Your task to perform on an android device: Search for 3d printer on AliExpress Image 0: 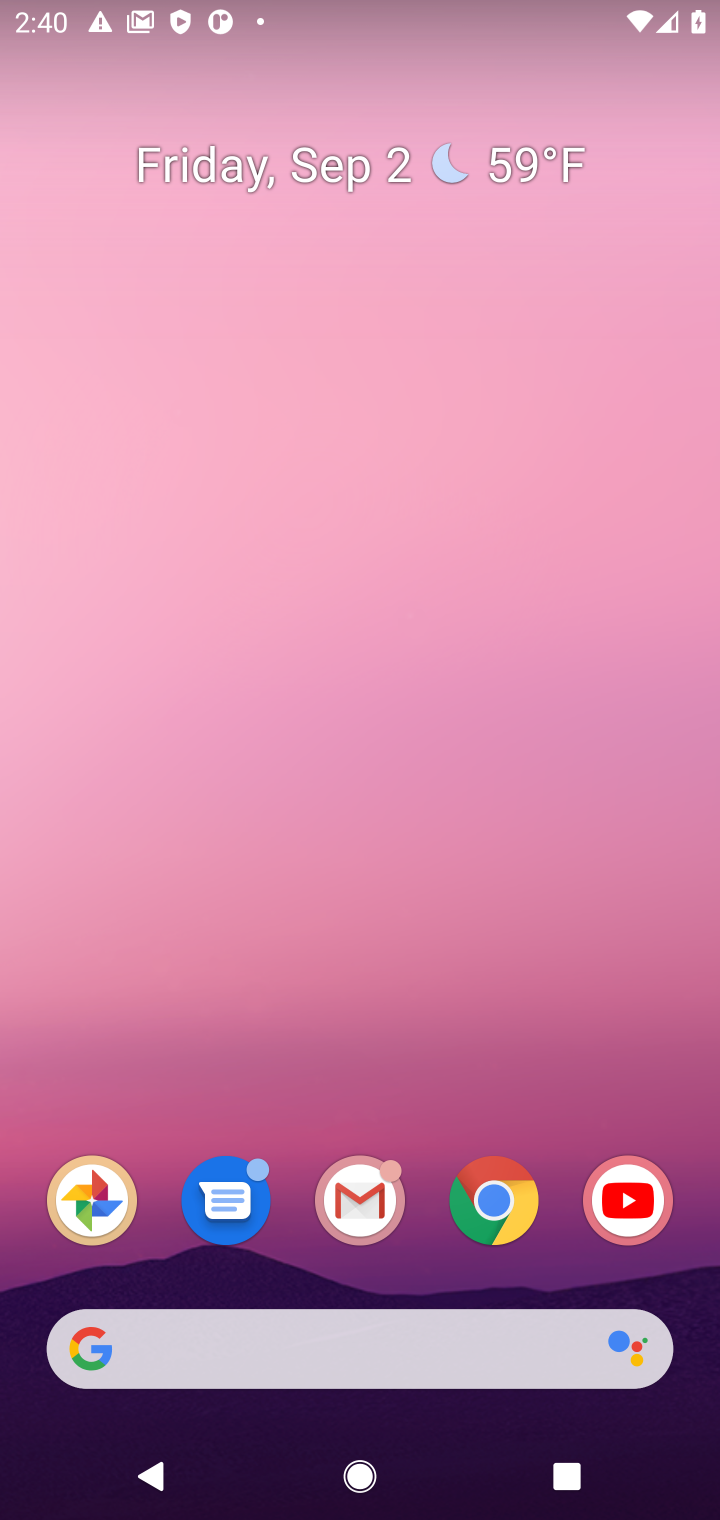
Step 0: click (492, 1204)
Your task to perform on an android device: Search for 3d printer on AliExpress Image 1: 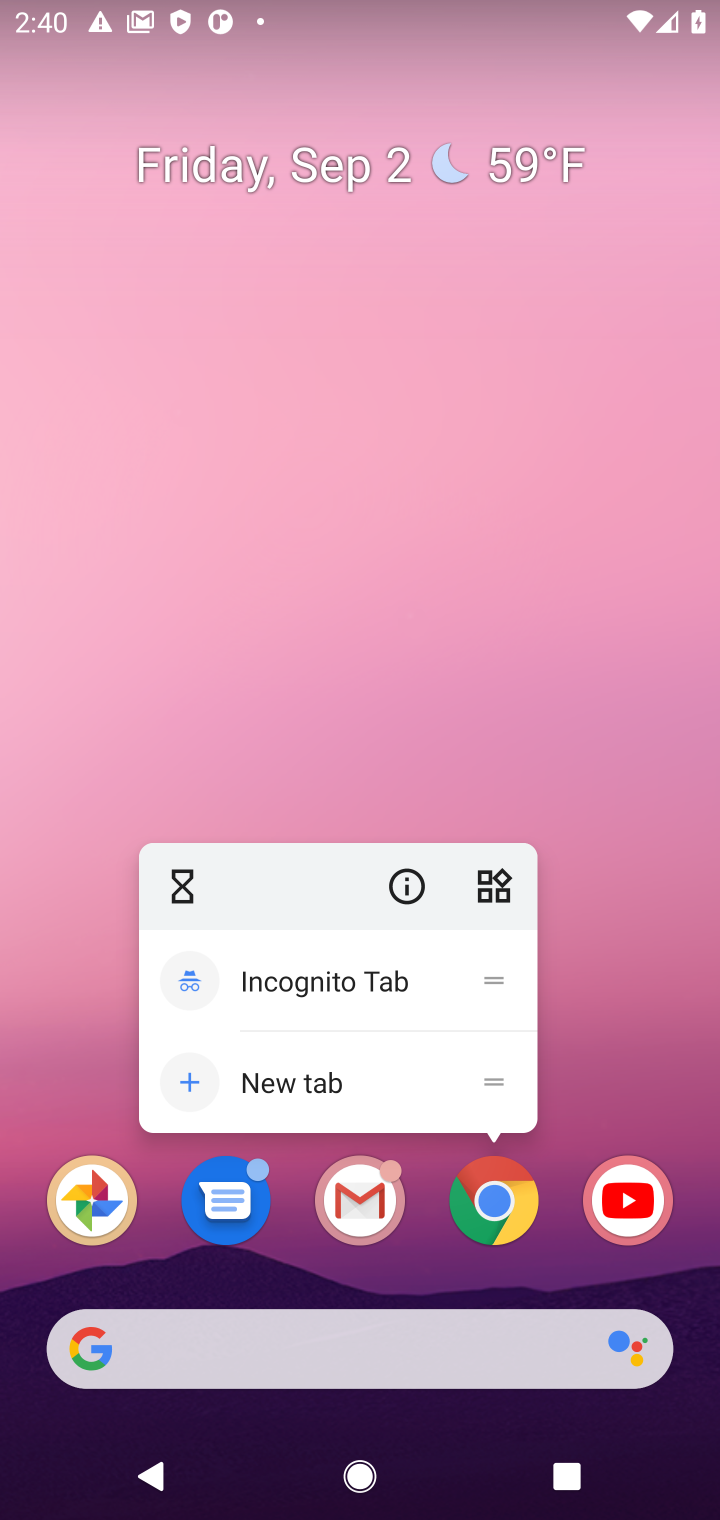
Step 1: click (492, 1204)
Your task to perform on an android device: Search for 3d printer on AliExpress Image 2: 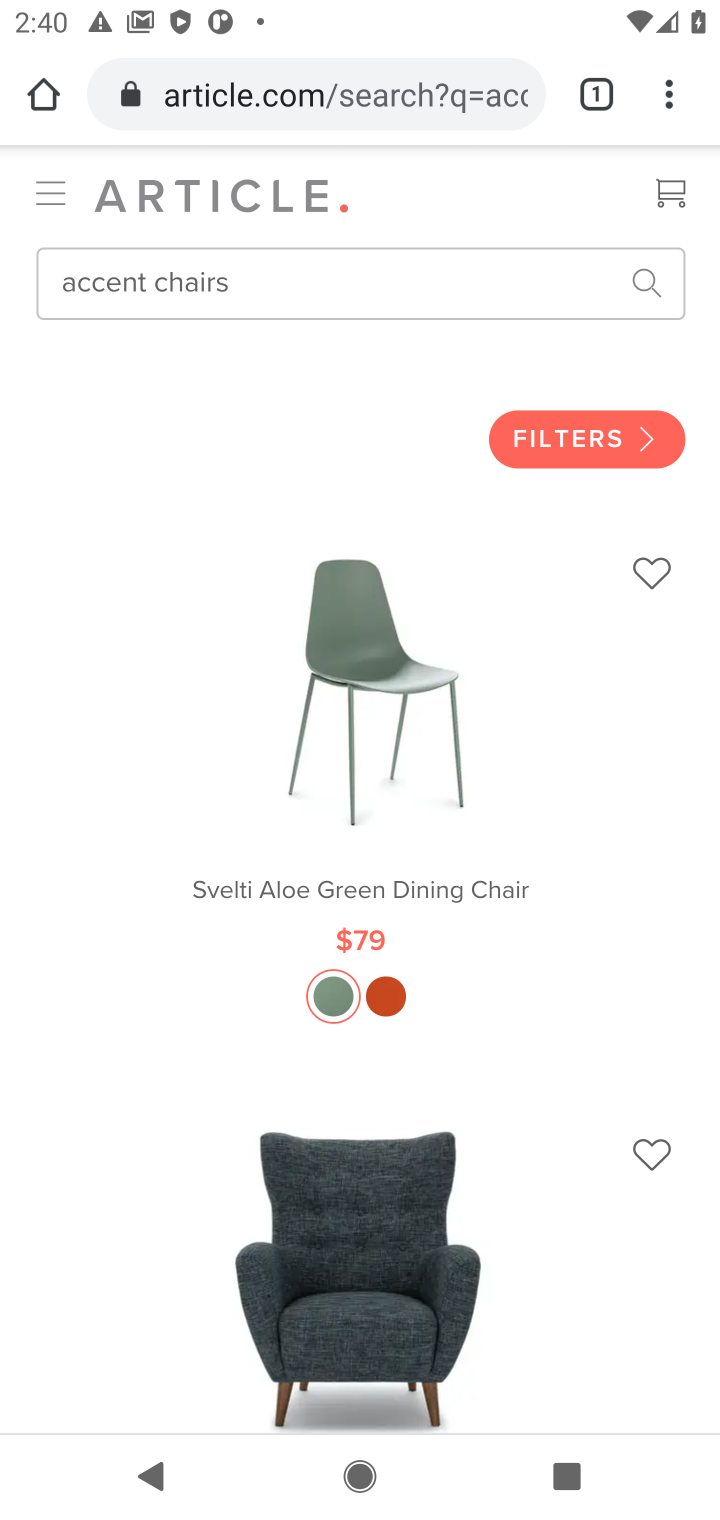
Step 2: click (451, 104)
Your task to perform on an android device: Search for 3d printer on AliExpress Image 3: 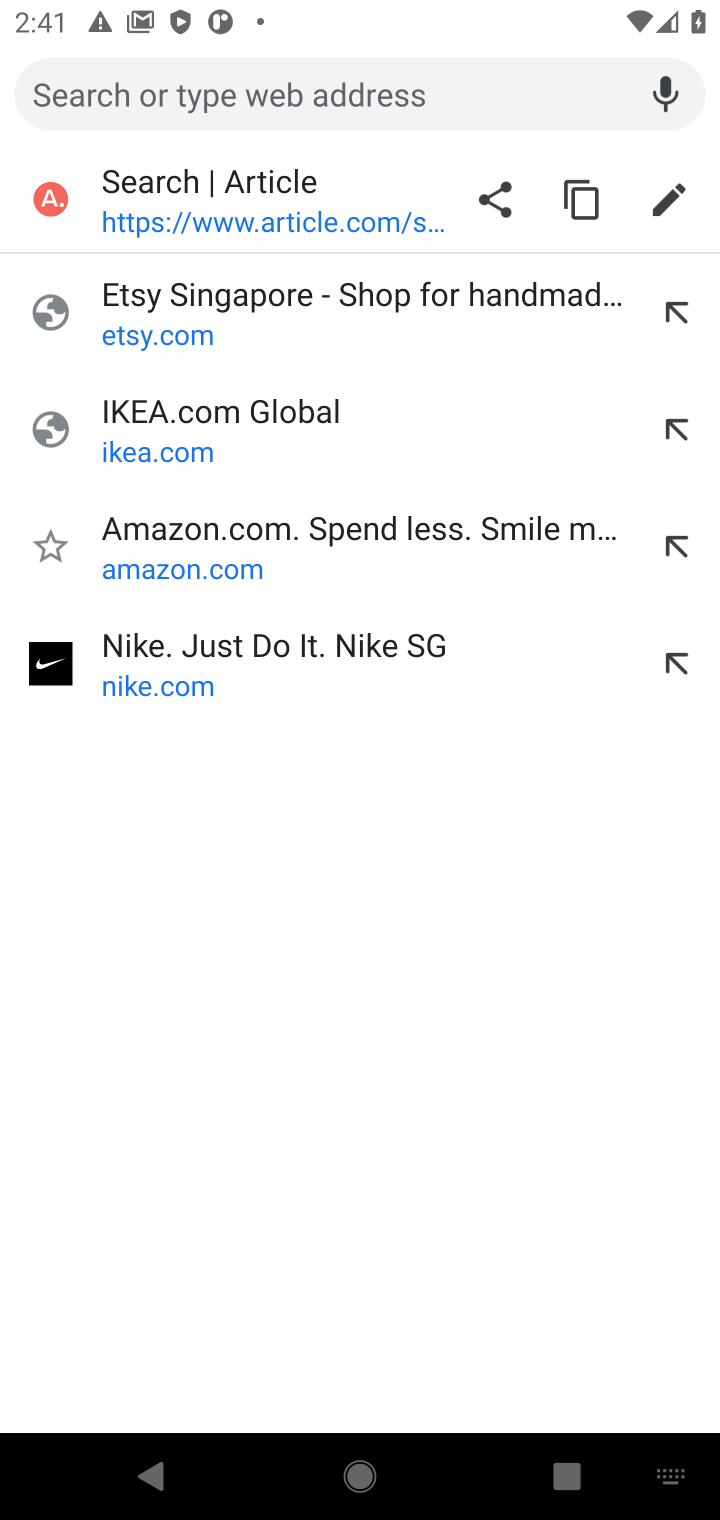
Step 3: type "AliExpress"
Your task to perform on an android device: Search for 3d printer on AliExpress Image 4: 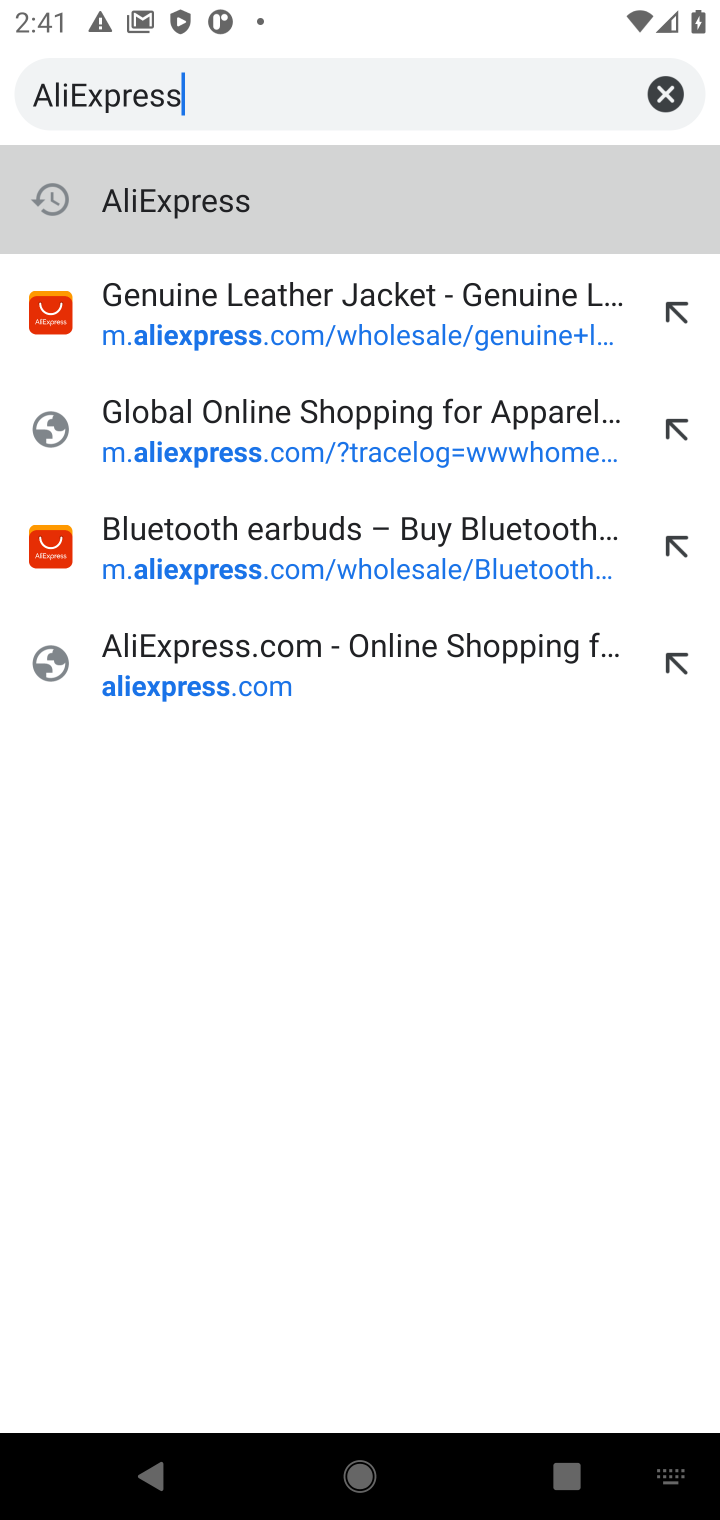
Step 4: press enter
Your task to perform on an android device: Search for 3d printer on AliExpress Image 5: 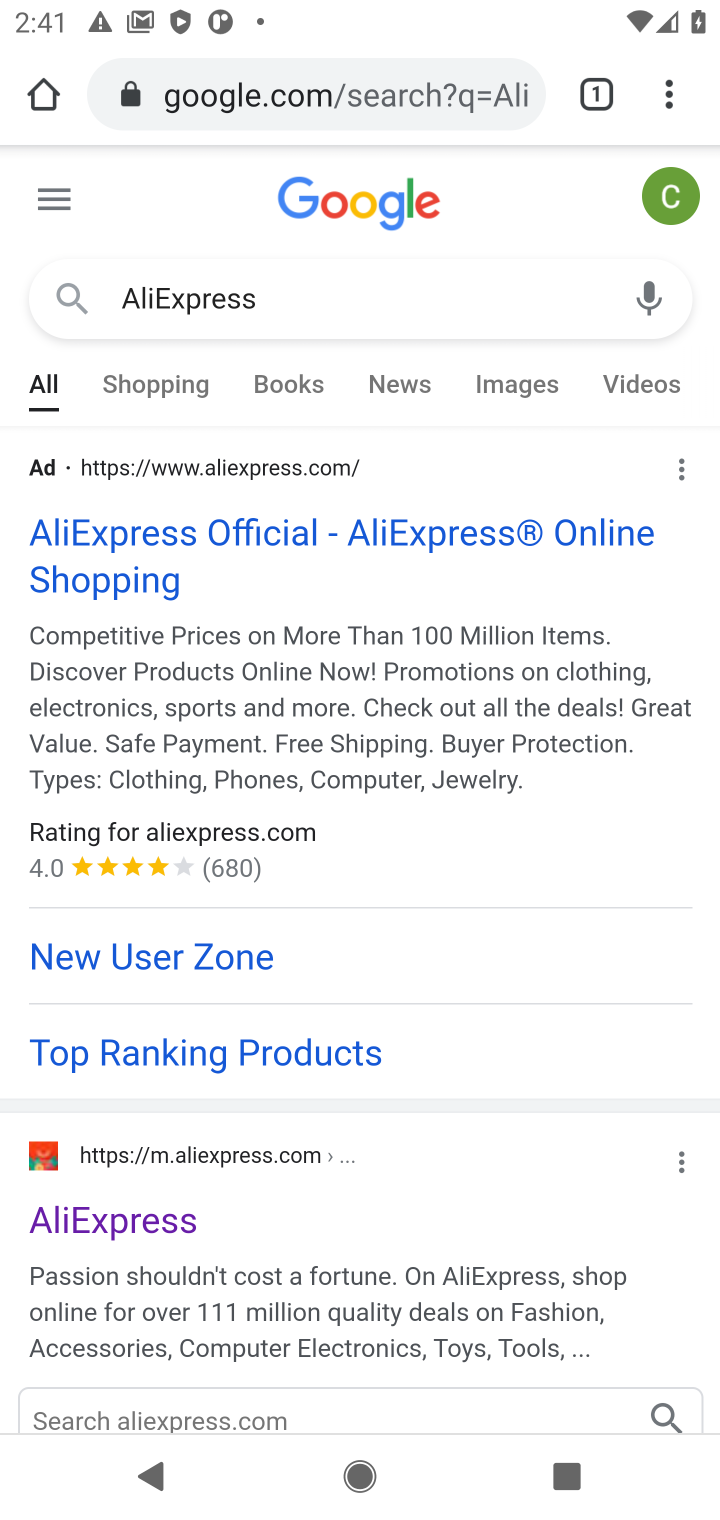
Step 5: click (277, 526)
Your task to perform on an android device: Search for 3d printer on AliExpress Image 6: 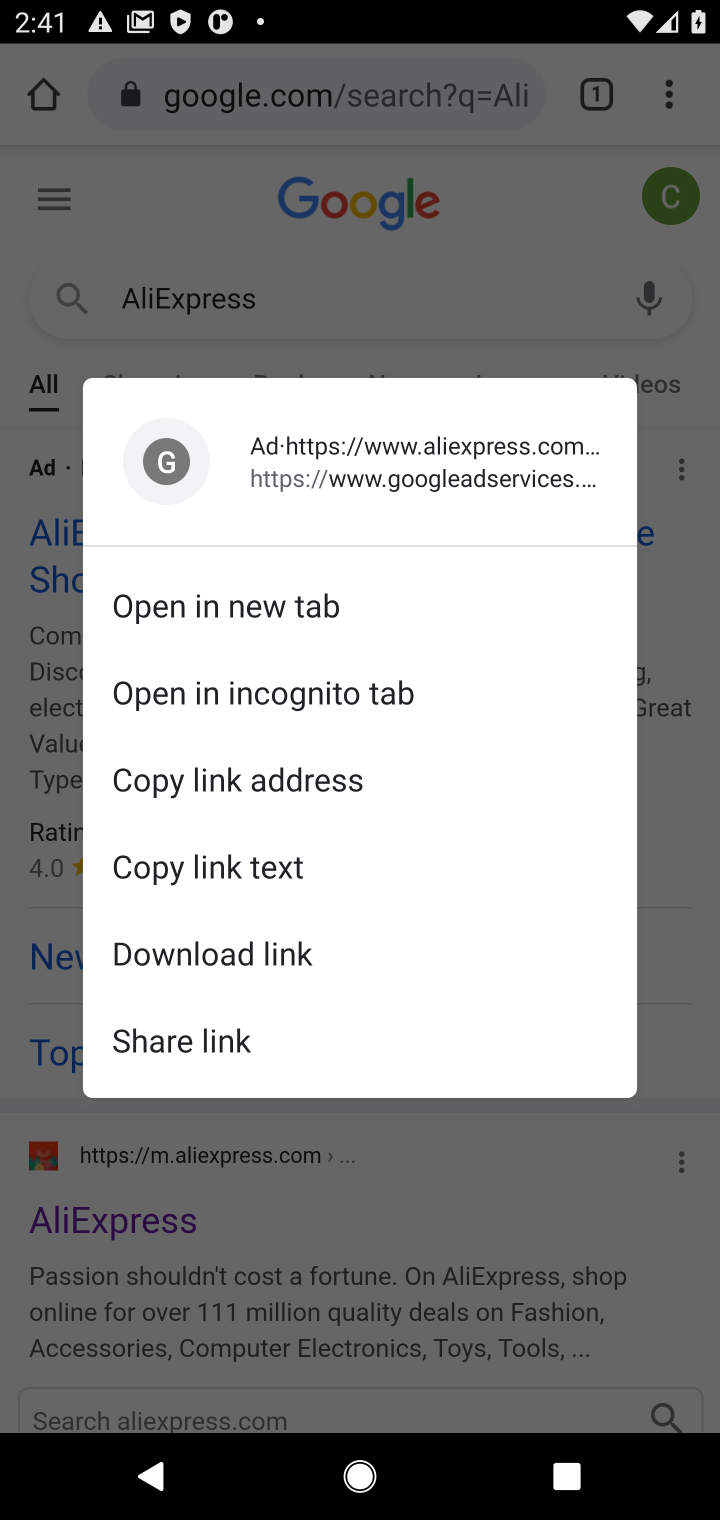
Step 6: click (602, 1203)
Your task to perform on an android device: Search for 3d printer on AliExpress Image 7: 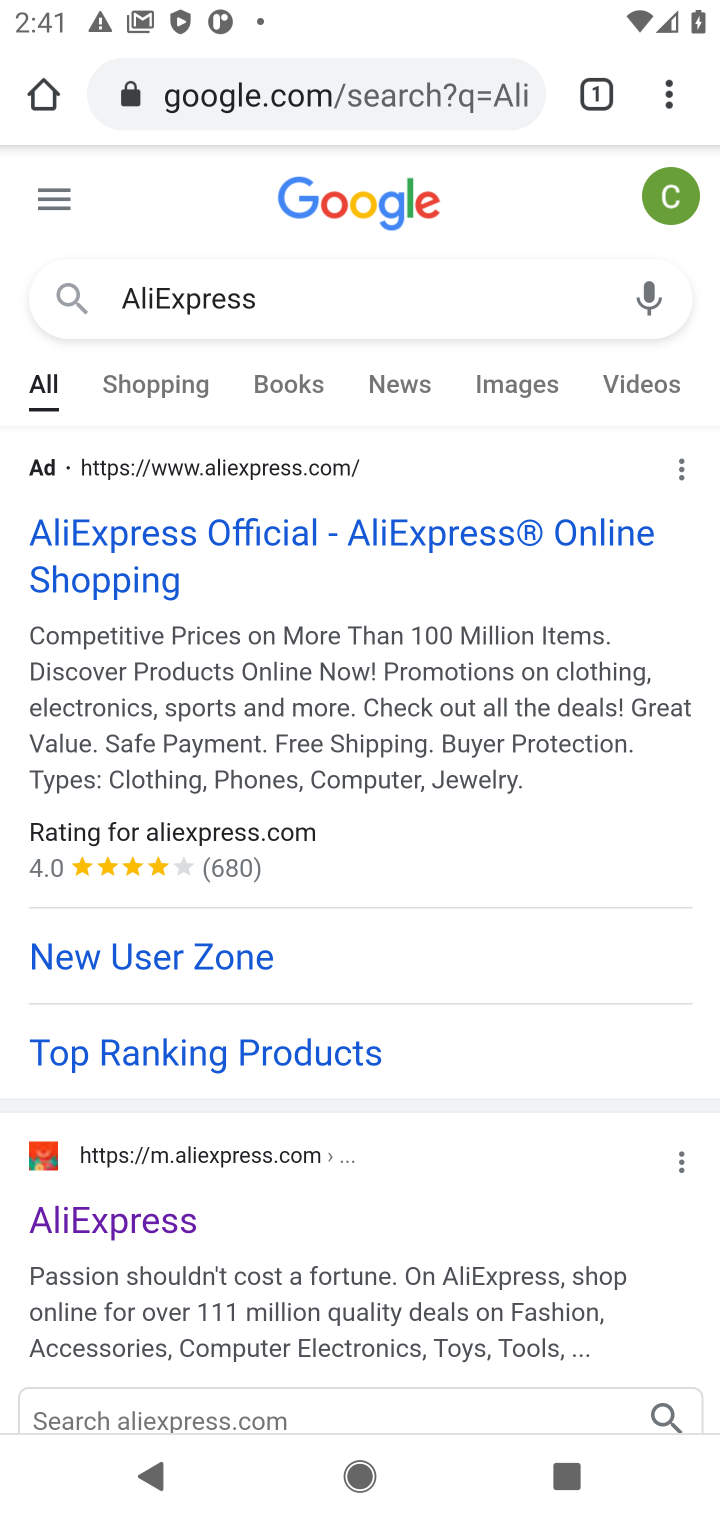
Step 7: click (135, 1228)
Your task to perform on an android device: Search for 3d printer on AliExpress Image 8: 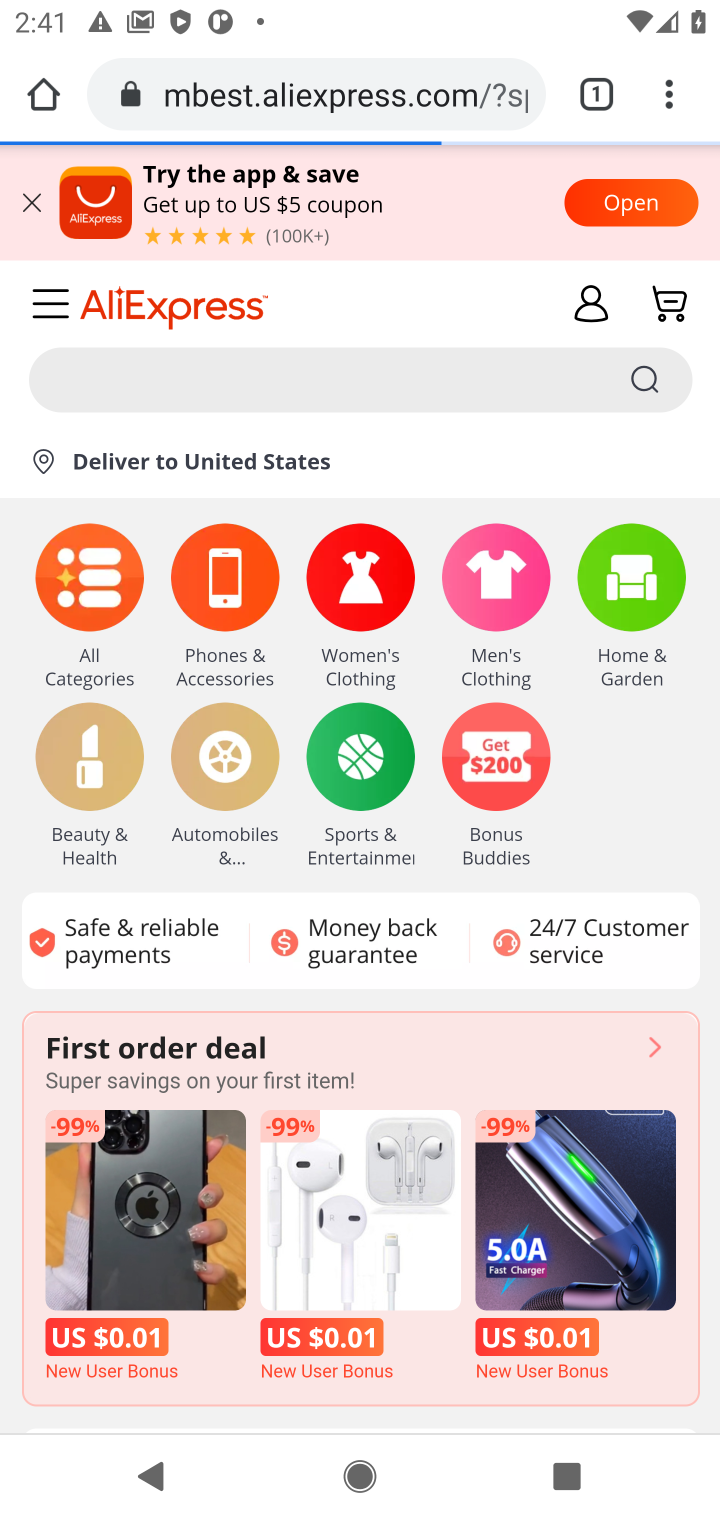
Step 8: click (426, 369)
Your task to perform on an android device: Search for 3d printer on AliExpress Image 9: 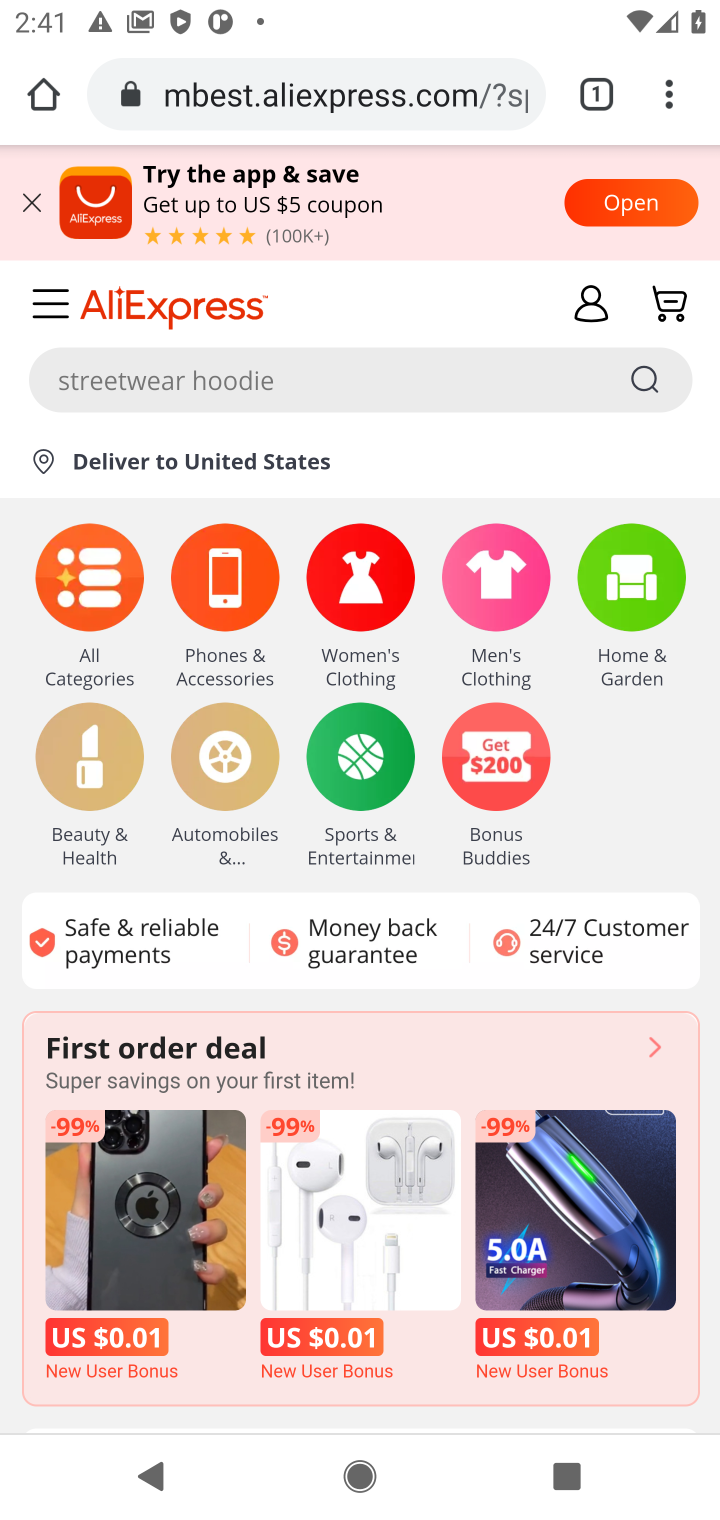
Step 9: click (413, 384)
Your task to perform on an android device: Search for 3d printer on AliExpress Image 10: 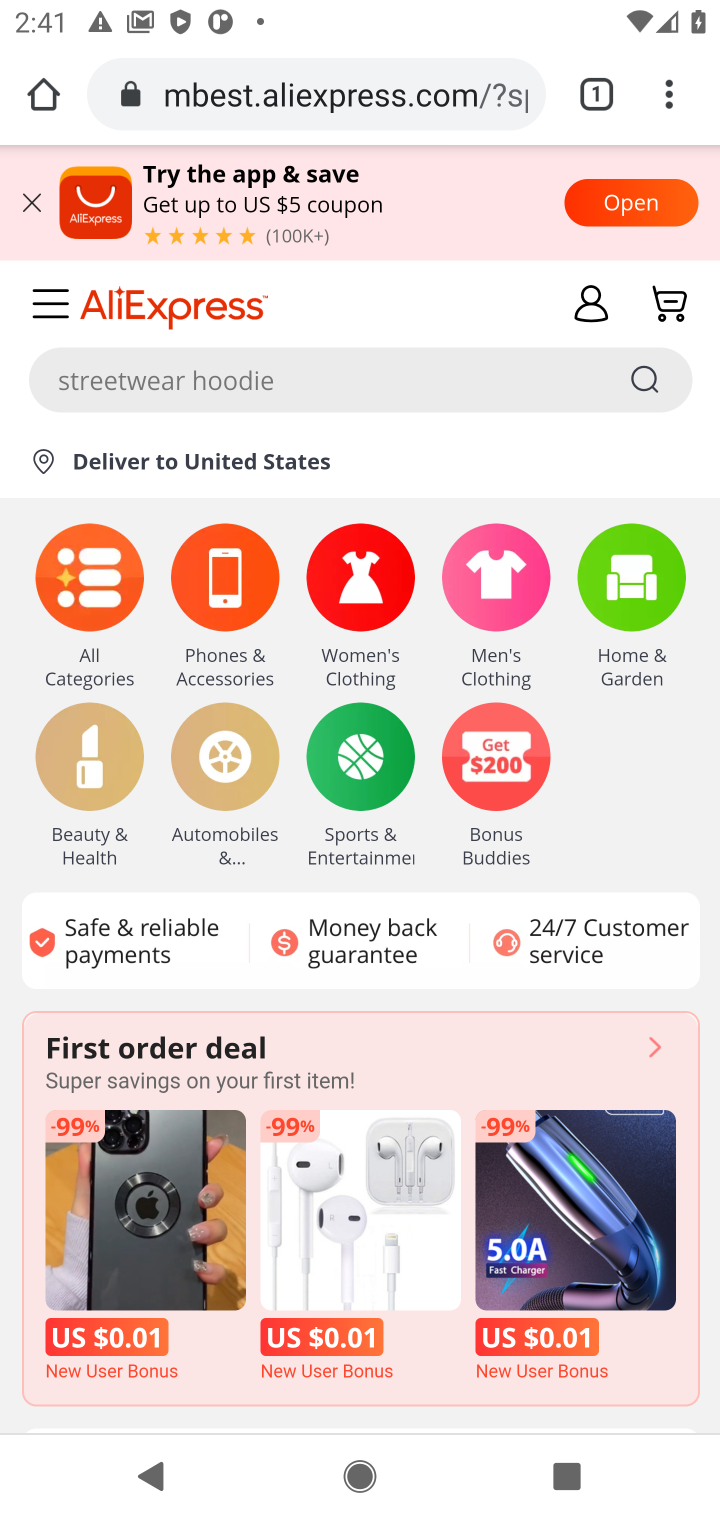
Step 10: click (206, 381)
Your task to perform on an android device: Search for 3d printer on AliExpress Image 11: 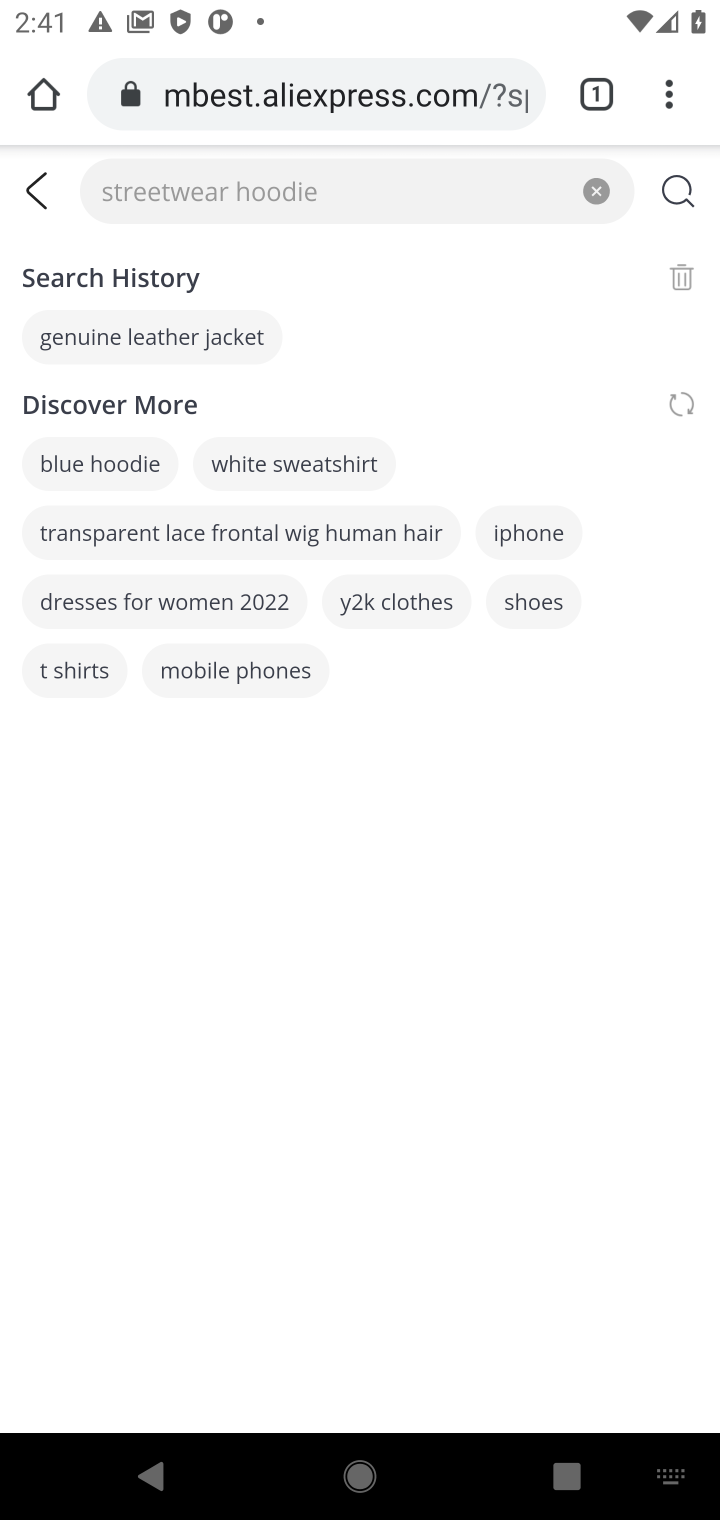
Step 11: click (320, 190)
Your task to perform on an android device: Search for 3d printer on AliExpress Image 12: 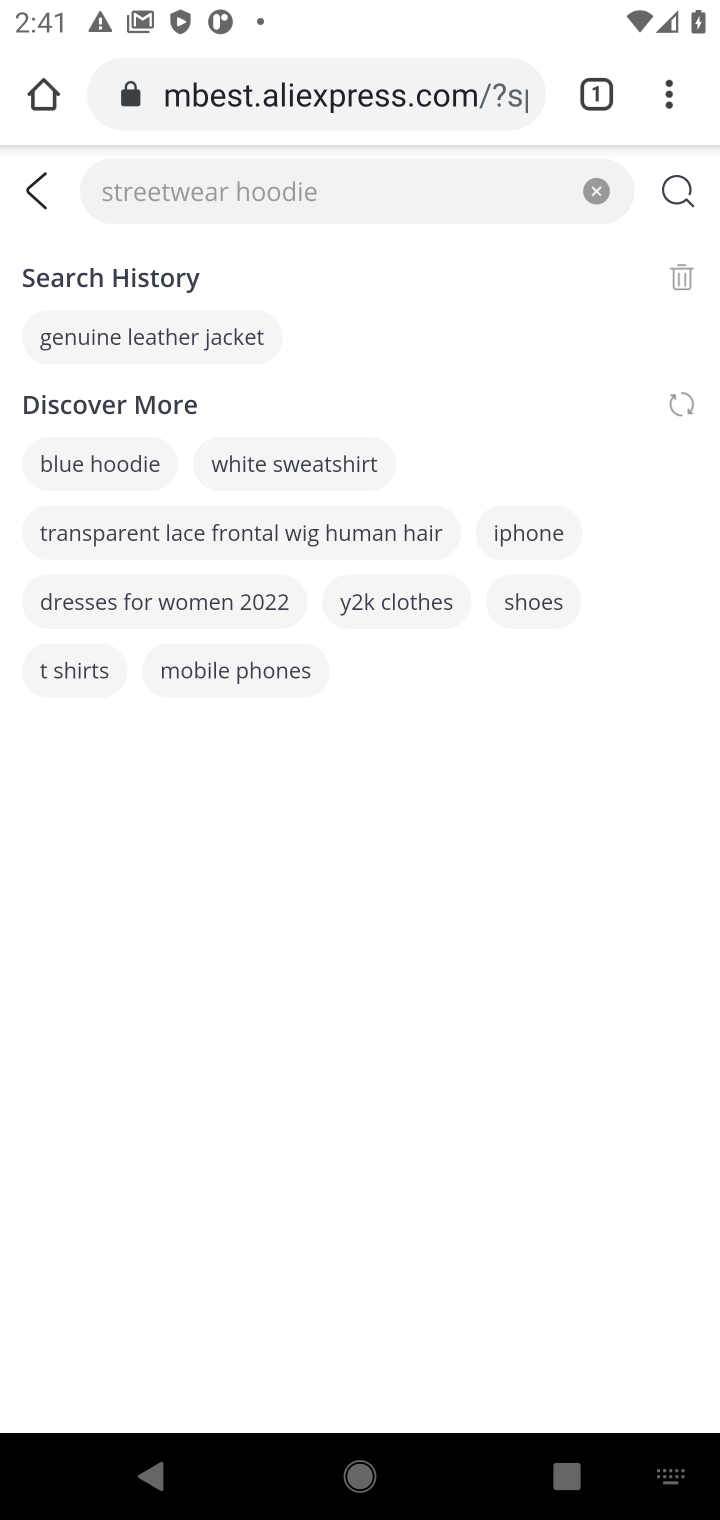
Step 12: drag from (366, 152) to (153, 216)
Your task to perform on an android device: Search for 3d printer on AliExpress Image 13: 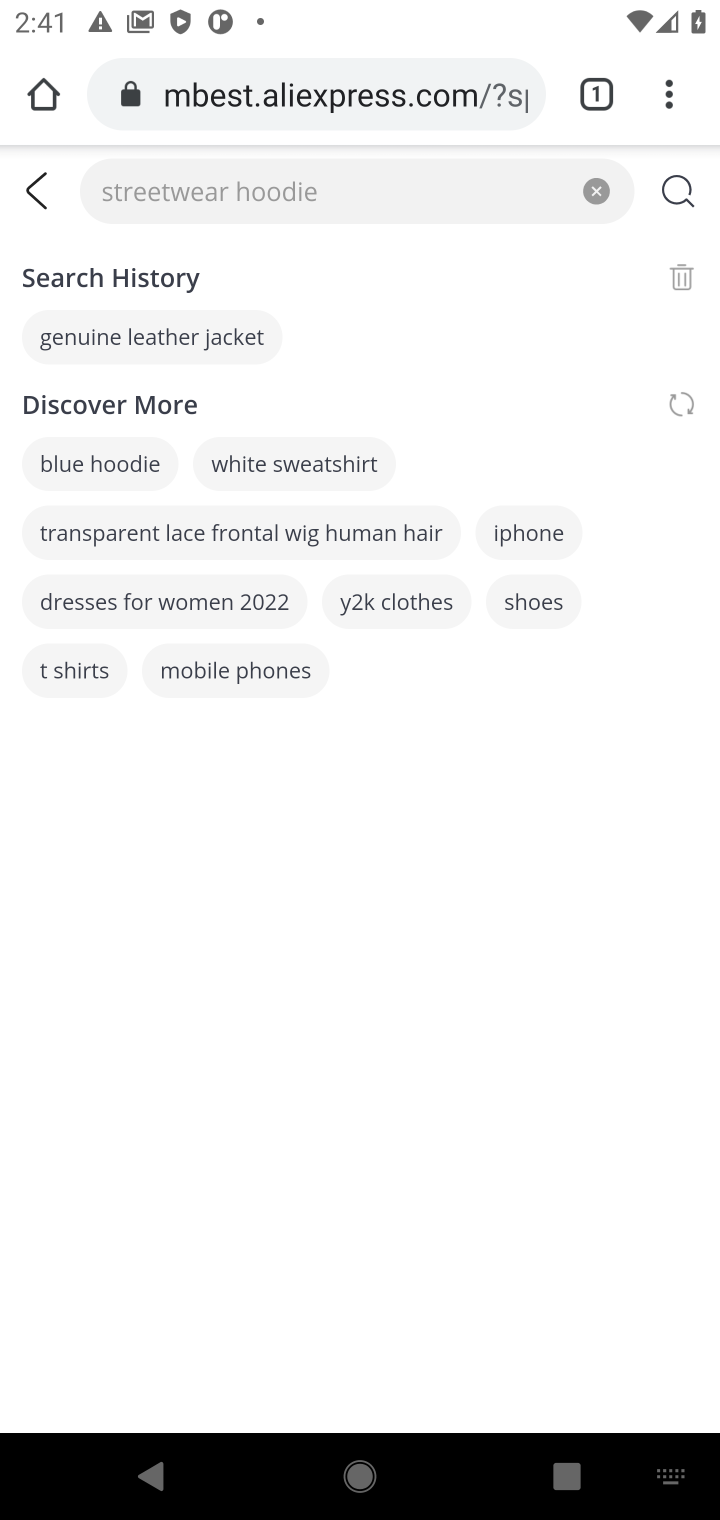
Step 13: click (591, 180)
Your task to perform on an android device: Search for 3d printer on AliExpress Image 14: 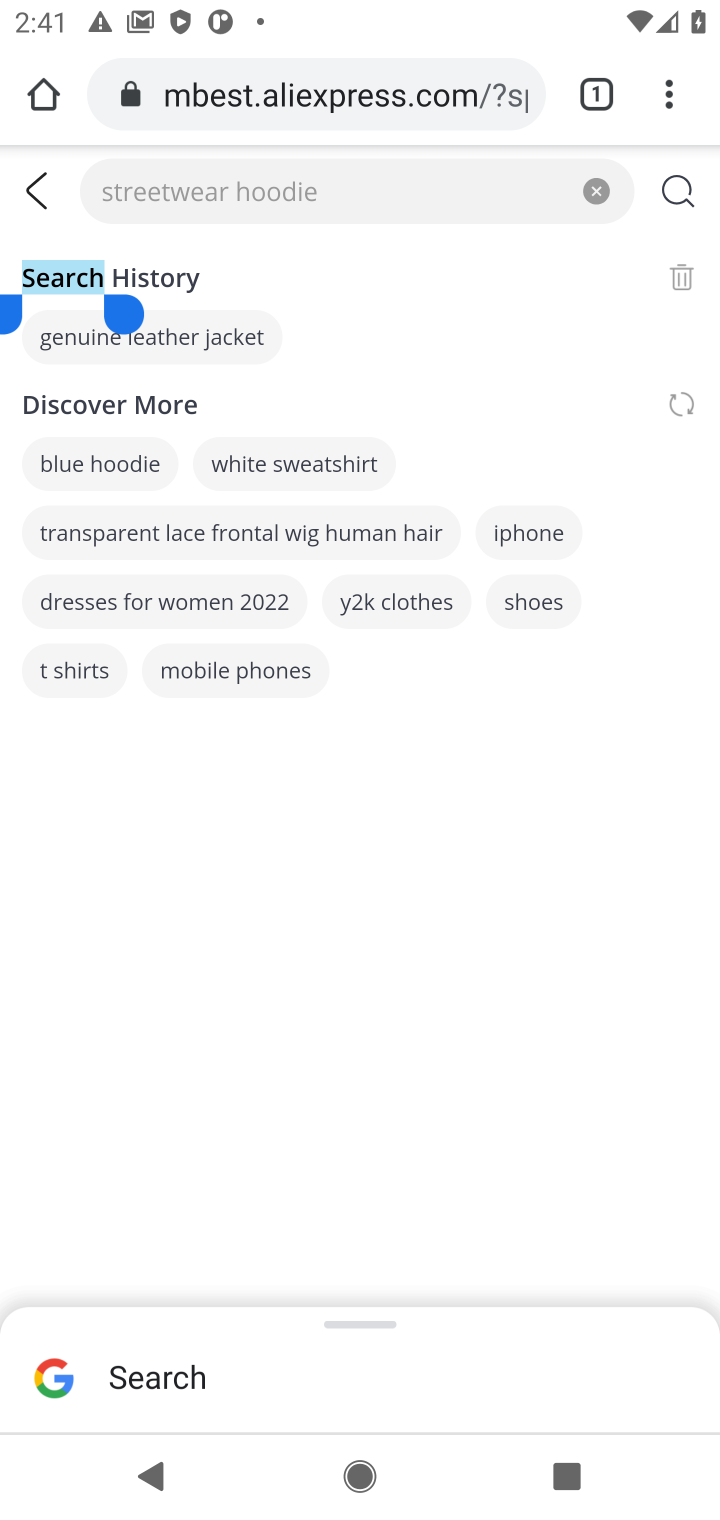
Step 14: click (250, 186)
Your task to perform on an android device: Search for 3d printer on AliExpress Image 15: 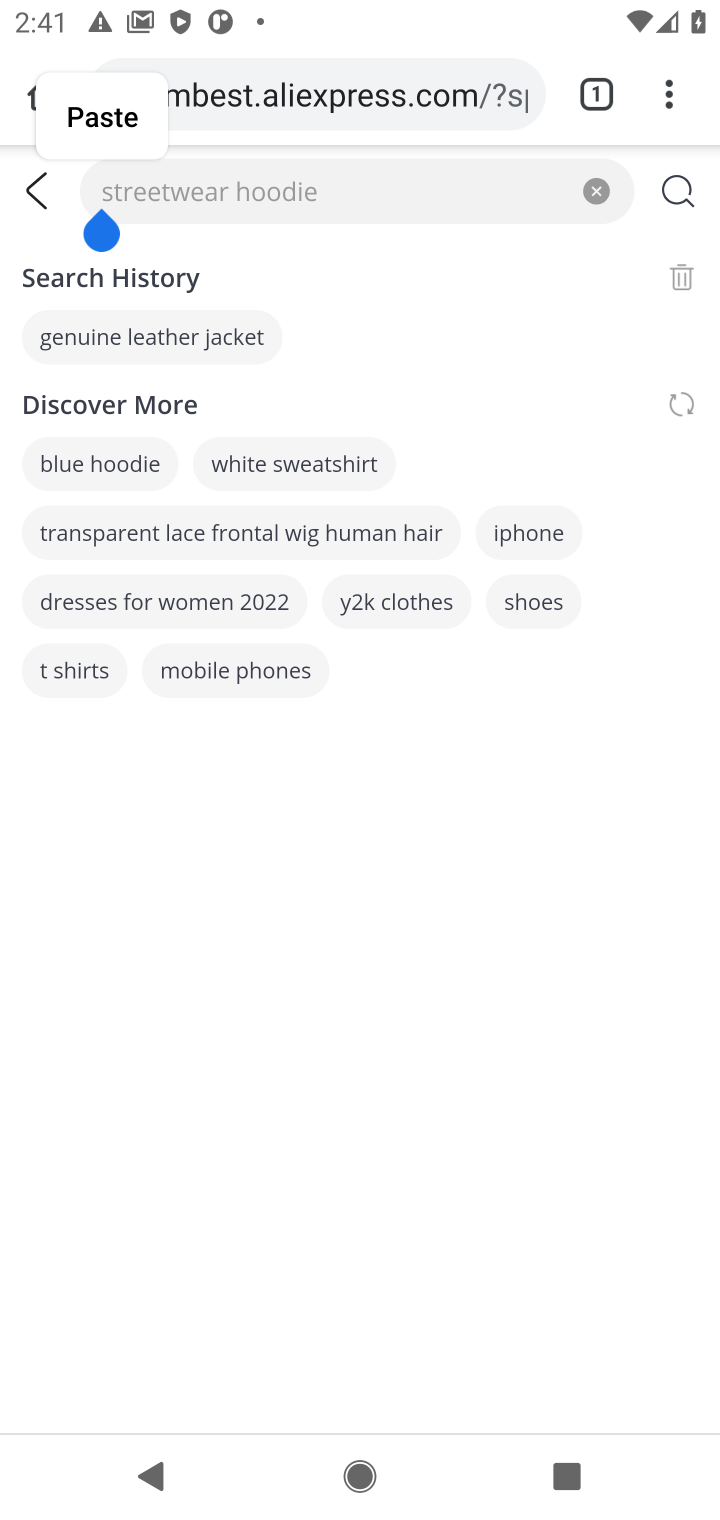
Step 15: type "3d printer"
Your task to perform on an android device: Search for 3d printer on AliExpress Image 16: 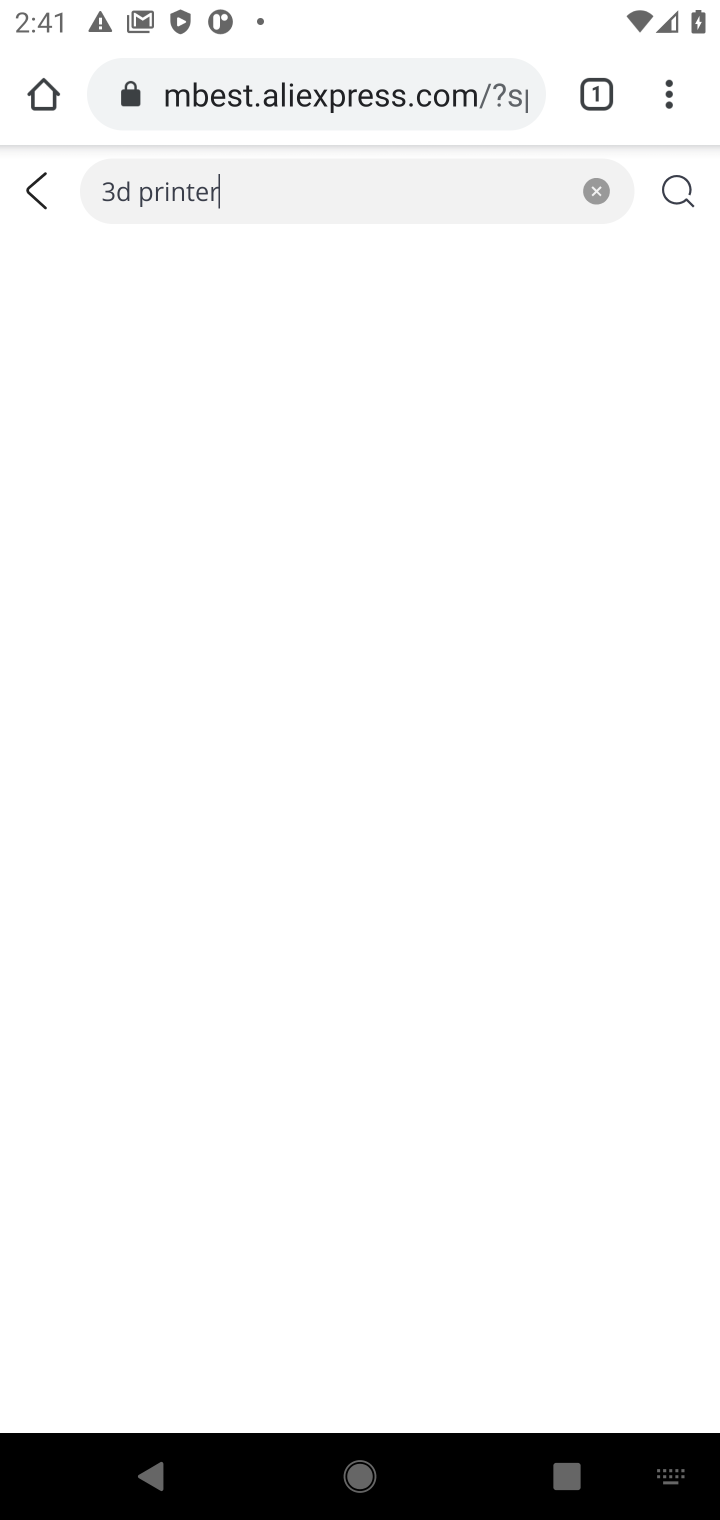
Step 16: press enter
Your task to perform on an android device: Search for 3d printer on AliExpress Image 17: 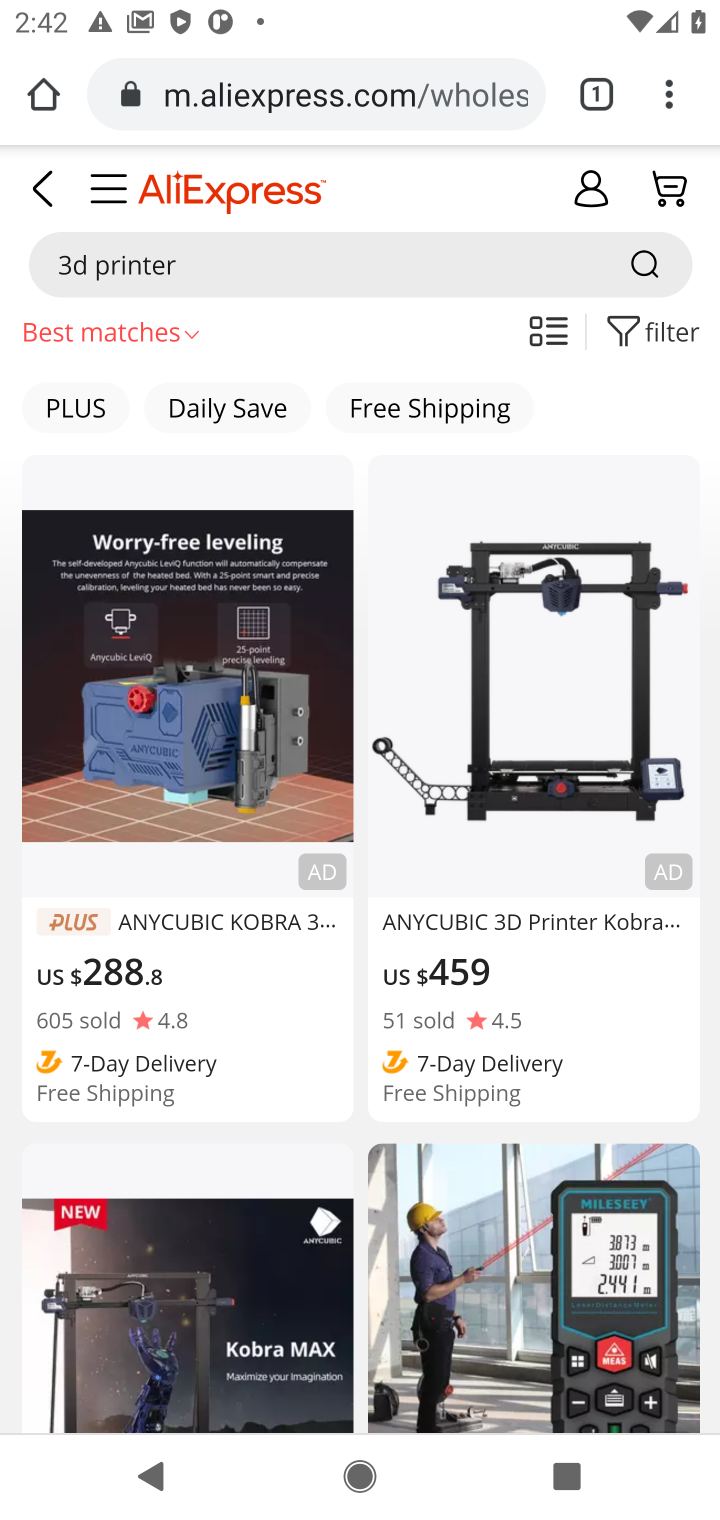
Step 17: task complete